Your task to perform on an android device: Open the web browser Image 0: 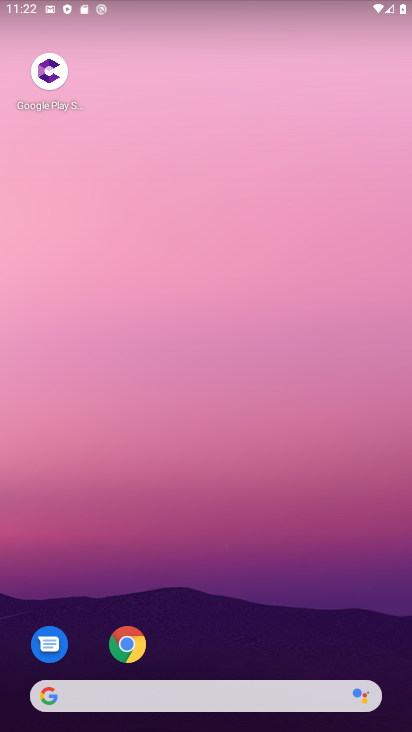
Step 0: click (126, 648)
Your task to perform on an android device: Open the web browser Image 1: 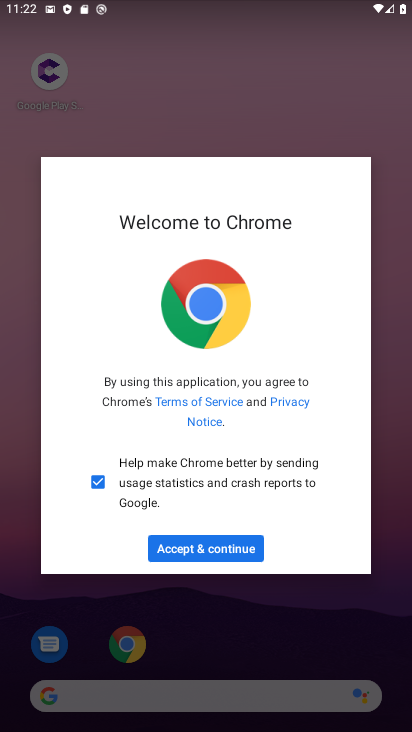
Step 1: click (182, 553)
Your task to perform on an android device: Open the web browser Image 2: 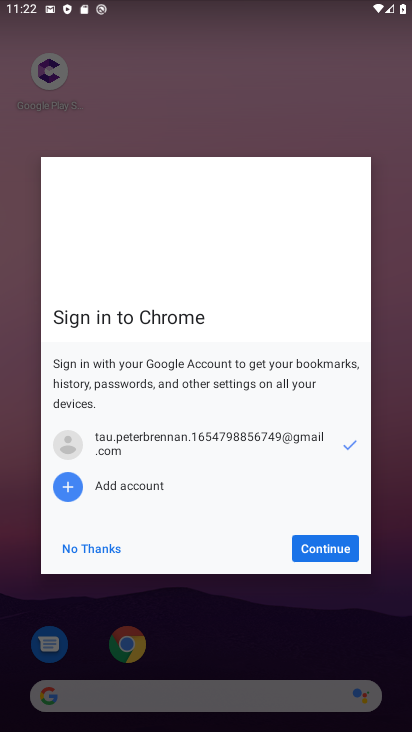
Step 2: click (311, 548)
Your task to perform on an android device: Open the web browser Image 3: 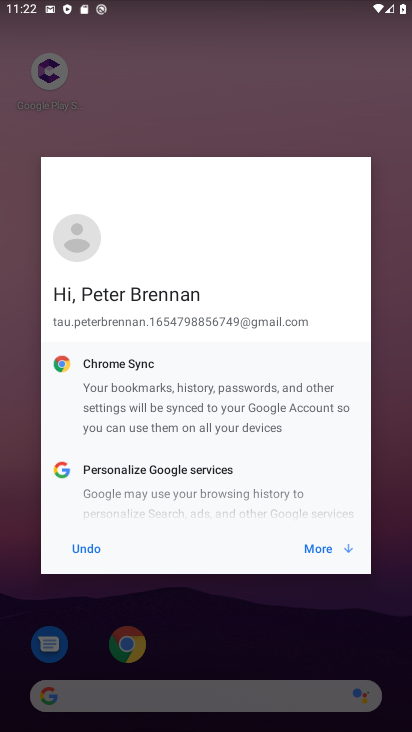
Step 3: click (350, 547)
Your task to perform on an android device: Open the web browser Image 4: 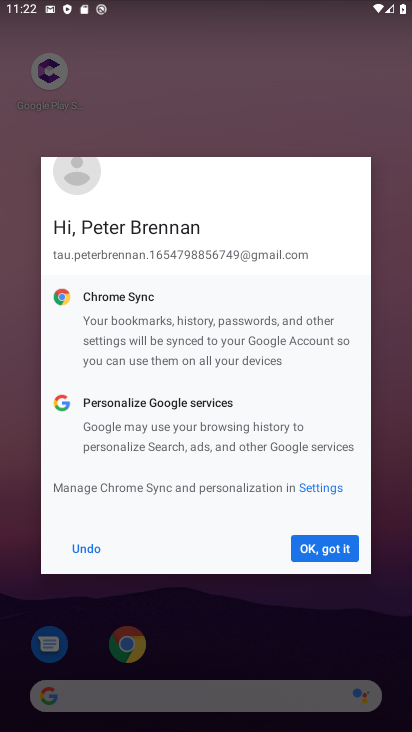
Step 4: click (336, 548)
Your task to perform on an android device: Open the web browser Image 5: 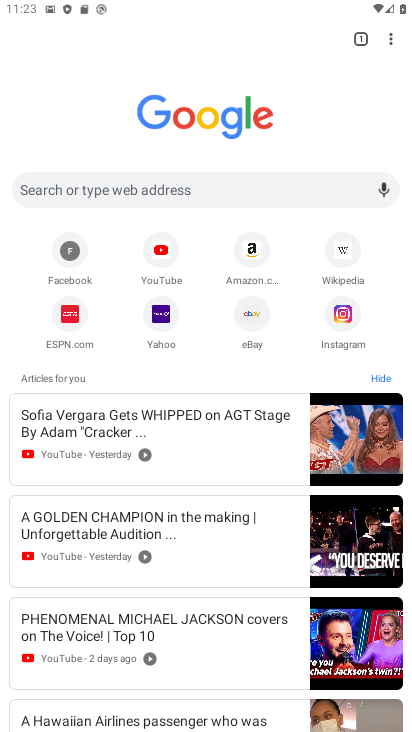
Step 5: task complete